Your task to perform on an android device: toggle wifi Image 0: 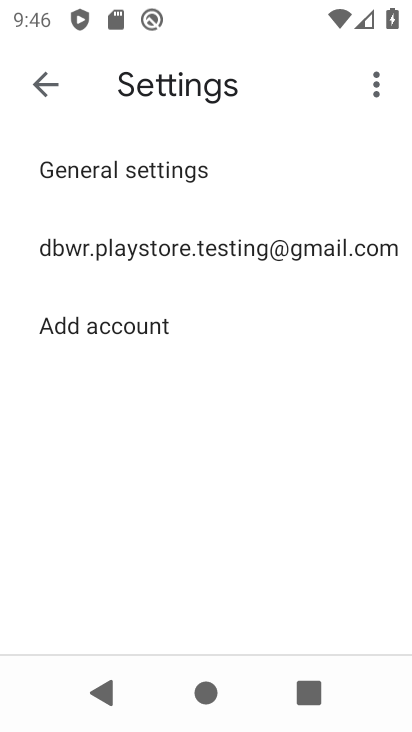
Step 0: press home button
Your task to perform on an android device: toggle wifi Image 1: 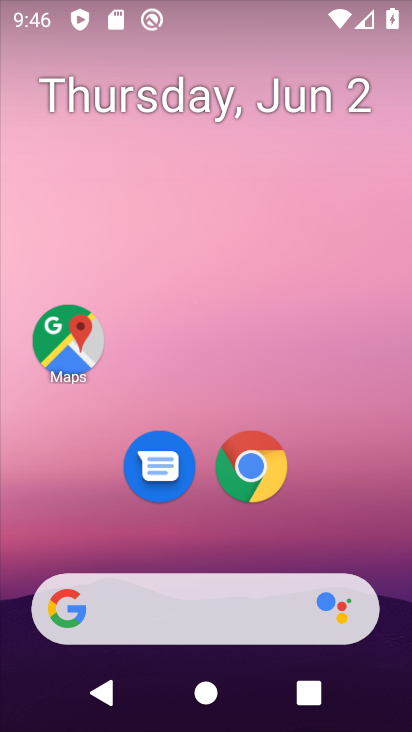
Step 1: drag from (104, 554) to (187, 121)
Your task to perform on an android device: toggle wifi Image 2: 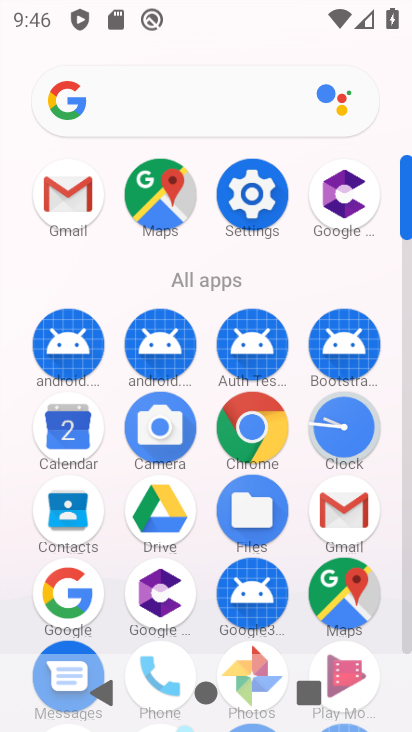
Step 2: drag from (156, 579) to (218, 286)
Your task to perform on an android device: toggle wifi Image 3: 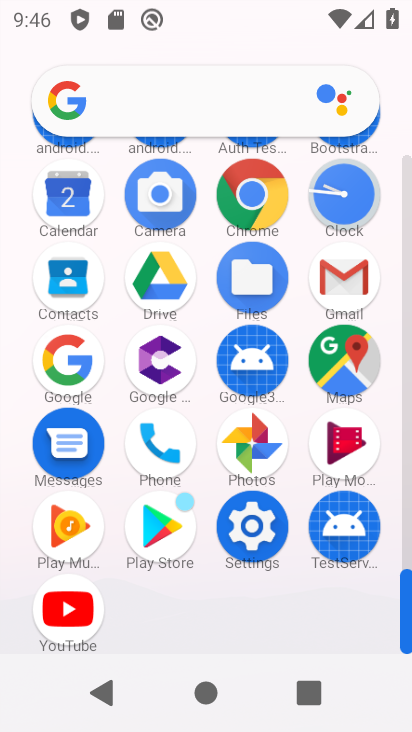
Step 3: click (256, 552)
Your task to perform on an android device: toggle wifi Image 4: 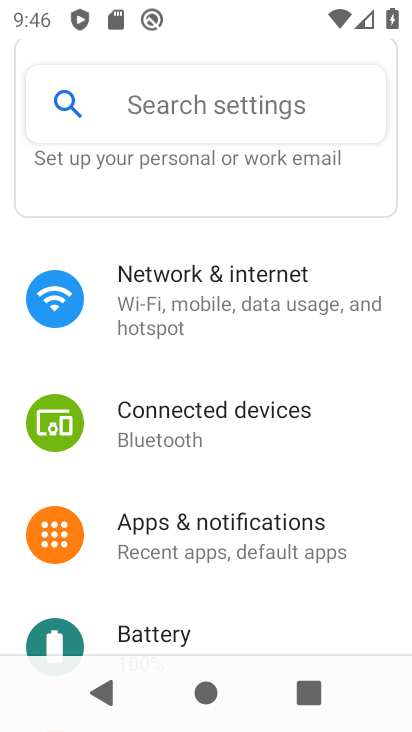
Step 4: click (270, 343)
Your task to perform on an android device: toggle wifi Image 5: 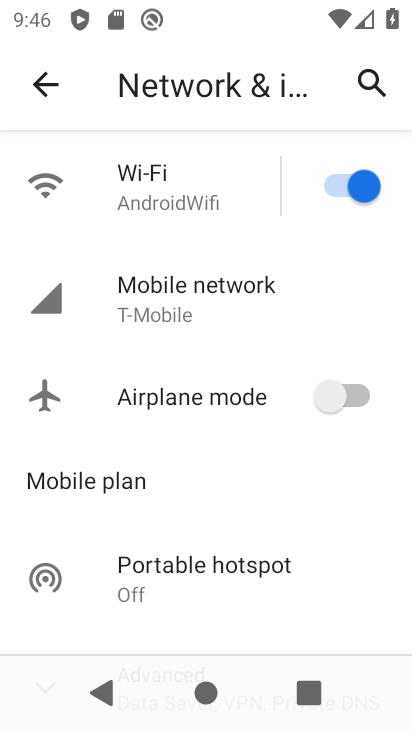
Step 5: click (344, 186)
Your task to perform on an android device: toggle wifi Image 6: 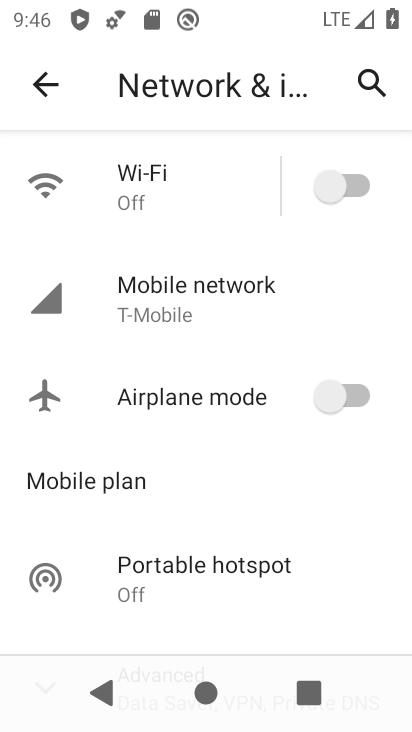
Step 6: task complete